Your task to perform on an android device: Clear the cart on target. Image 0: 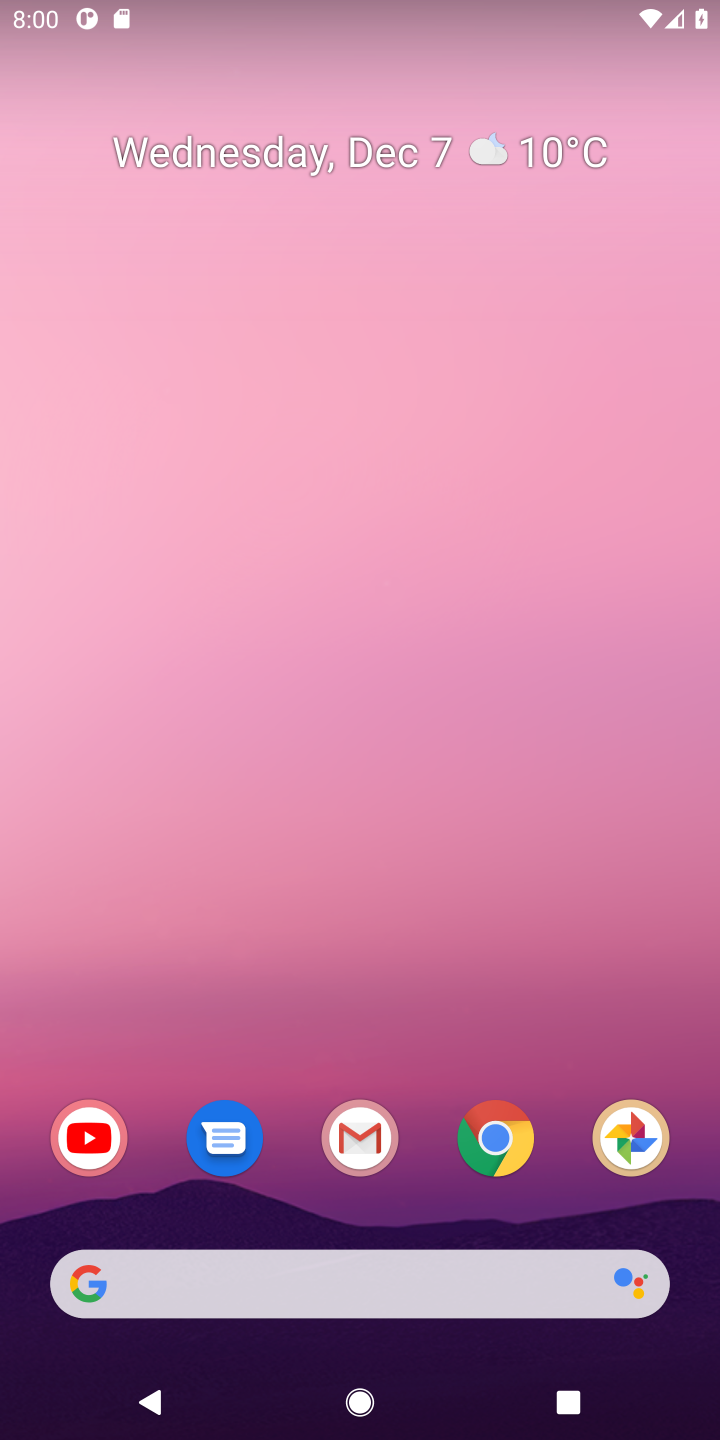
Step 0: press home button
Your task to perform on an android device: Clear the cart on target. Image 1: 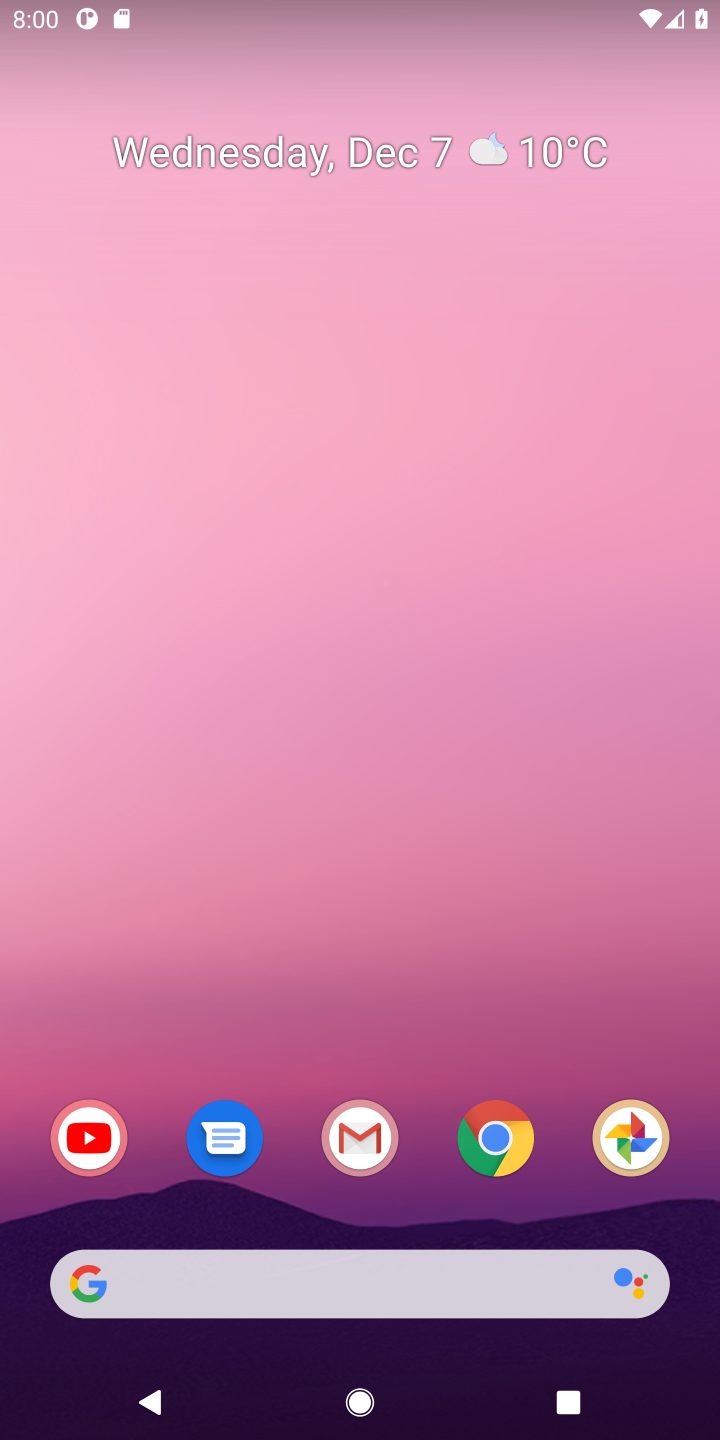
Step 1: click (130, 1273)
Your task to perform on an android device: Clear the cart on target. Image 2: 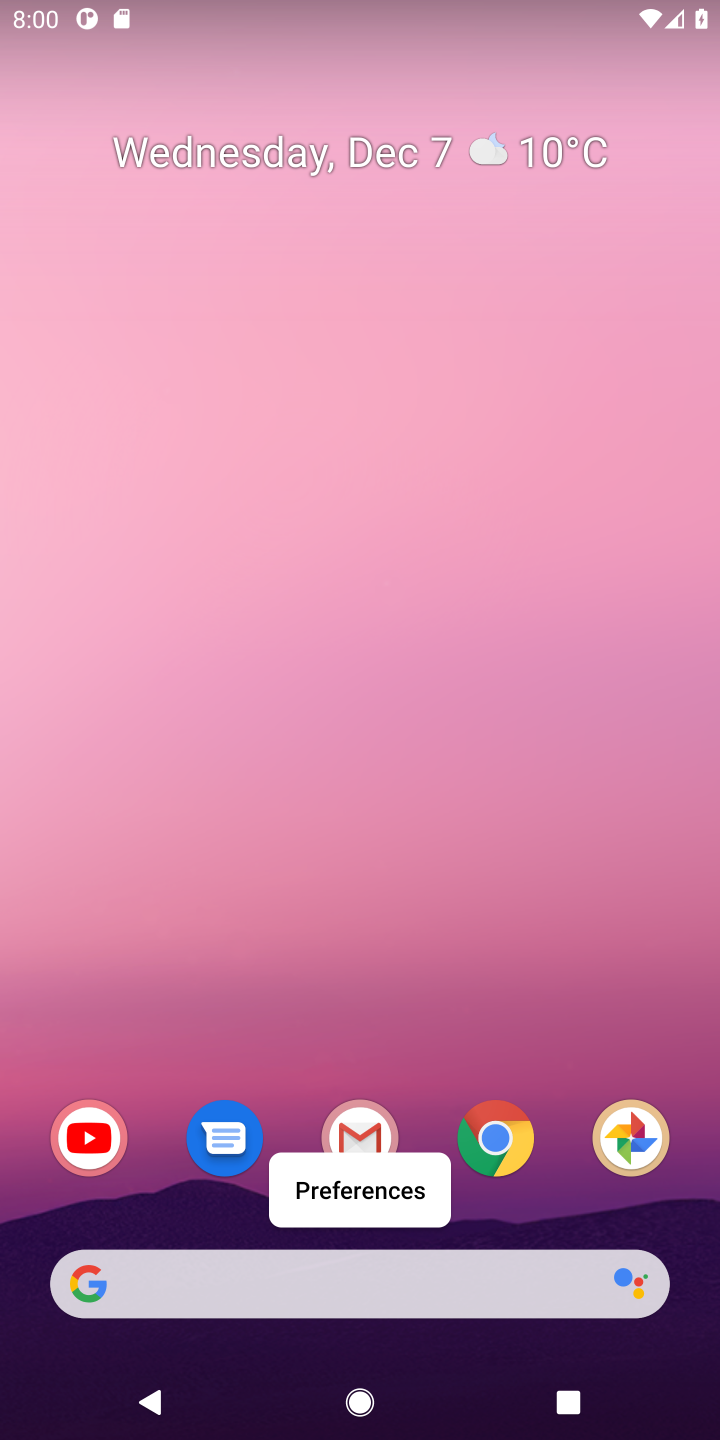
Step 2: click (129, 1283)
Your task to perform on an android device: Clear the cart on target. Image 3: 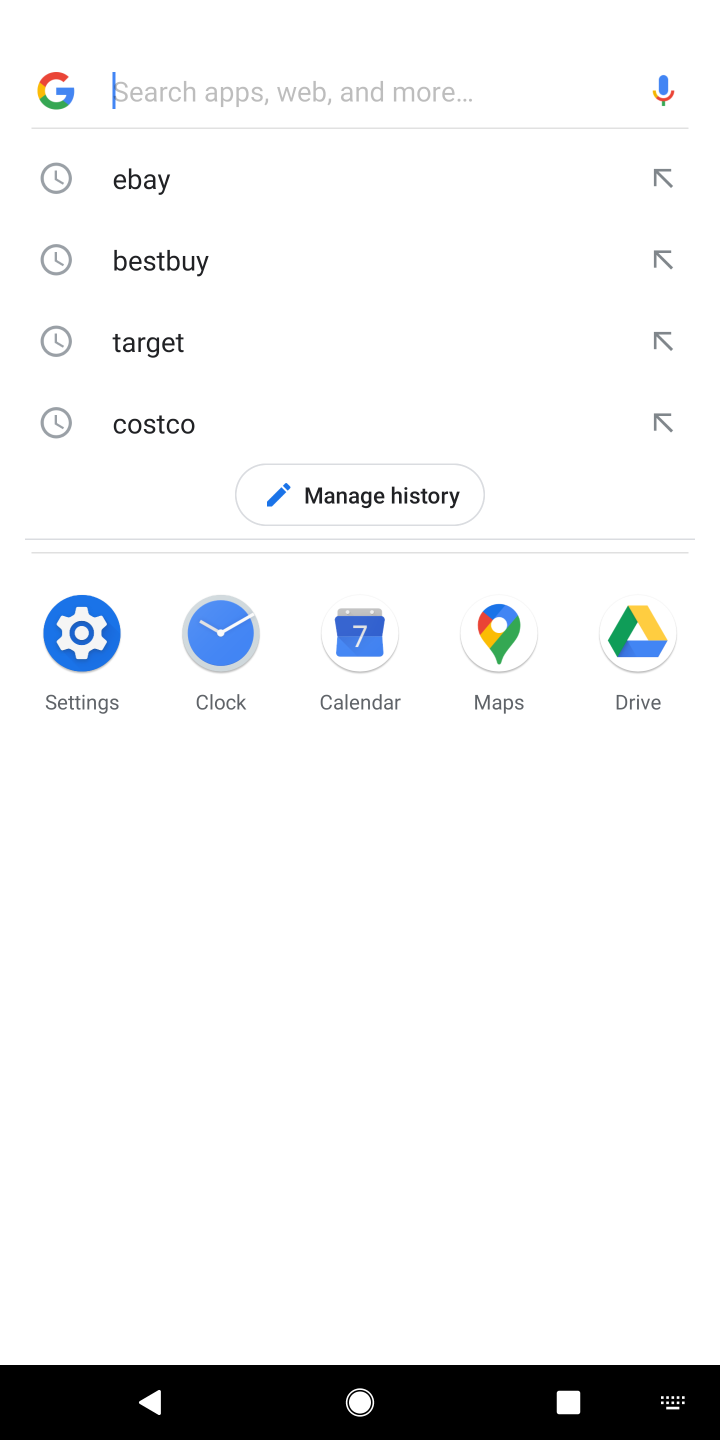
Step 3: press enter
Your task to perform on an android device: Clear the cart on target. Image 4: 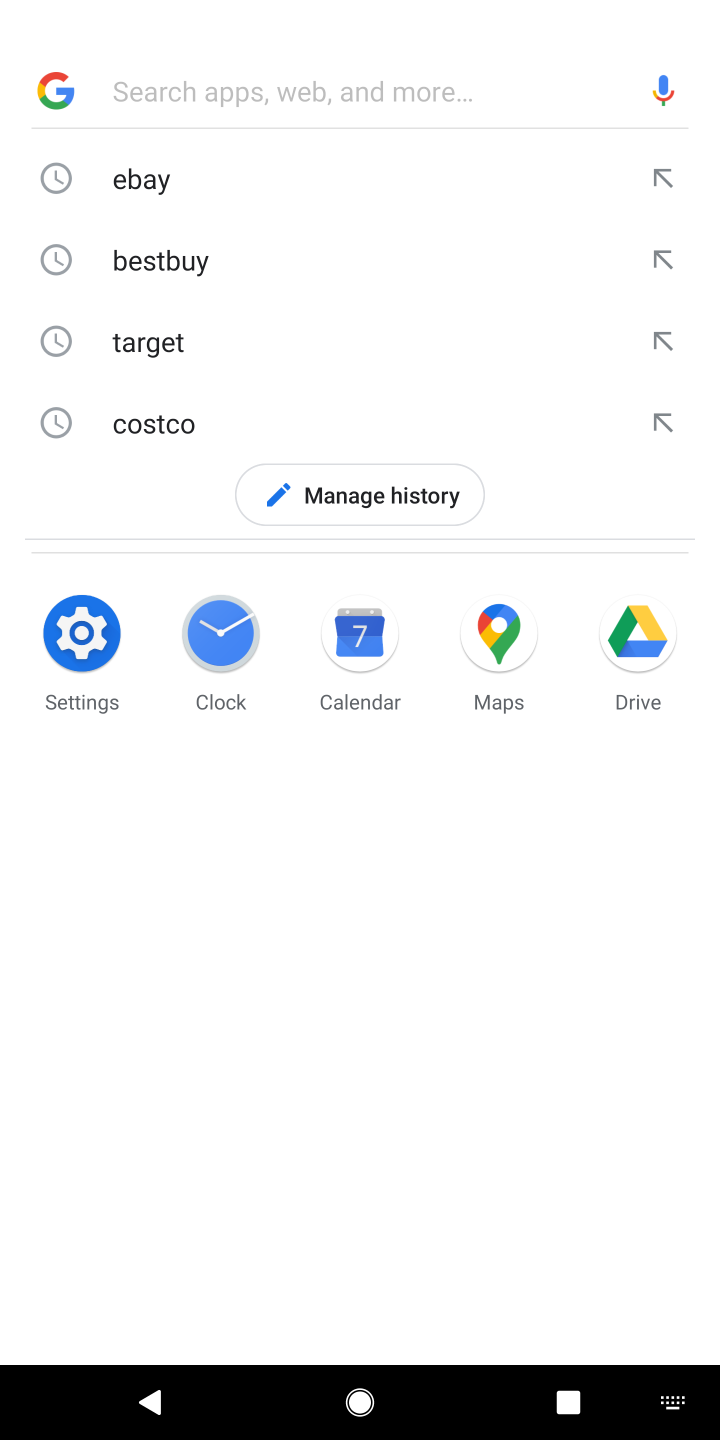
Step 4: type "target"
Your task to perform on an android device: Clear the cart on target. Image 5: 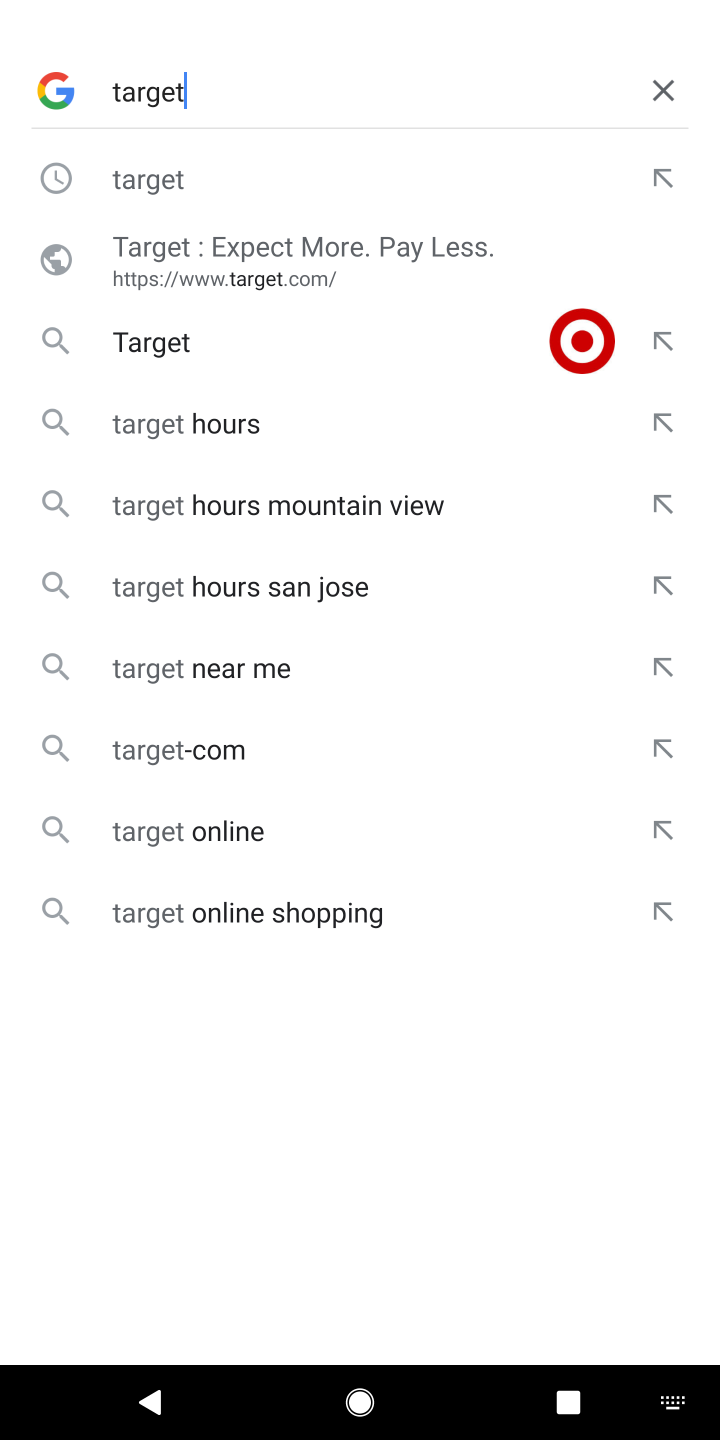
Step 5: press enter
Your task to perform on an android device: Clear the cart on target. Image 6: 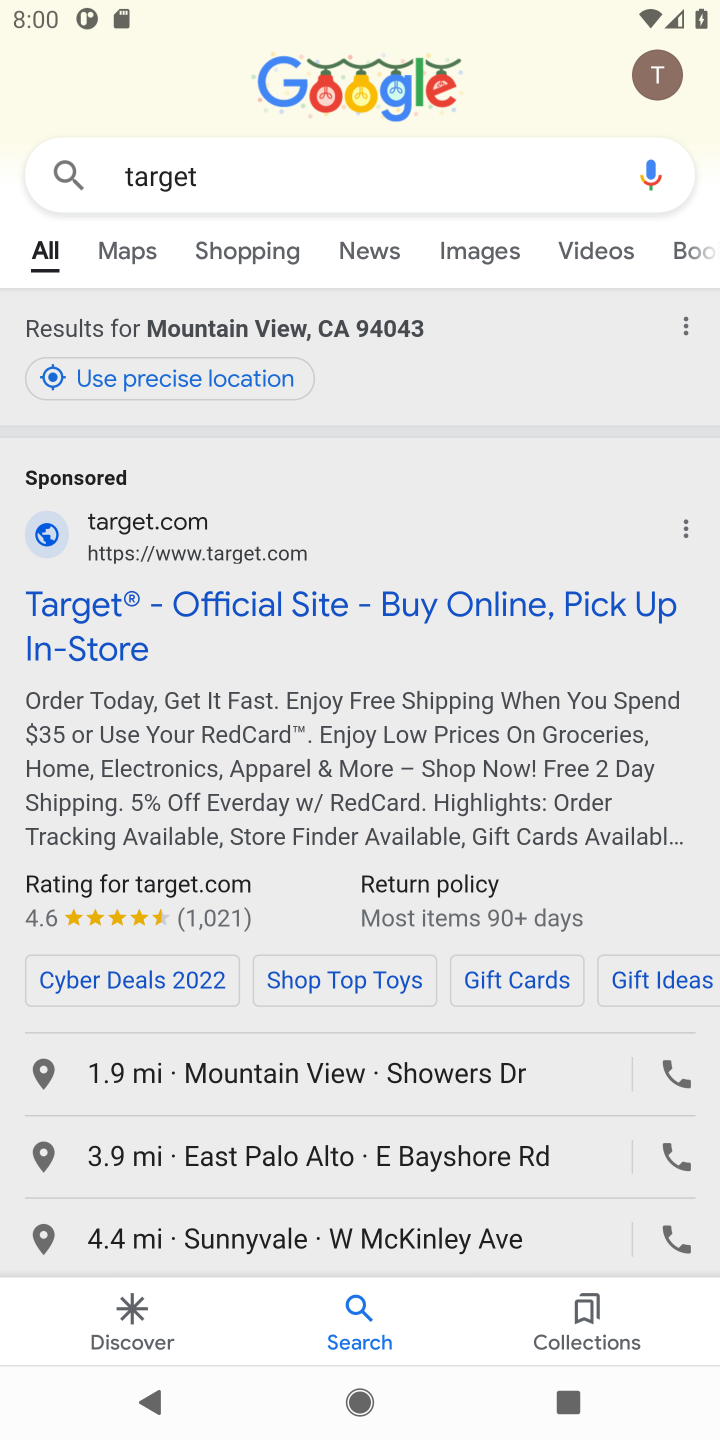
Step 6: click (251, 606)
Your task to perform on an android device: Clear the cart on target. Image 7: 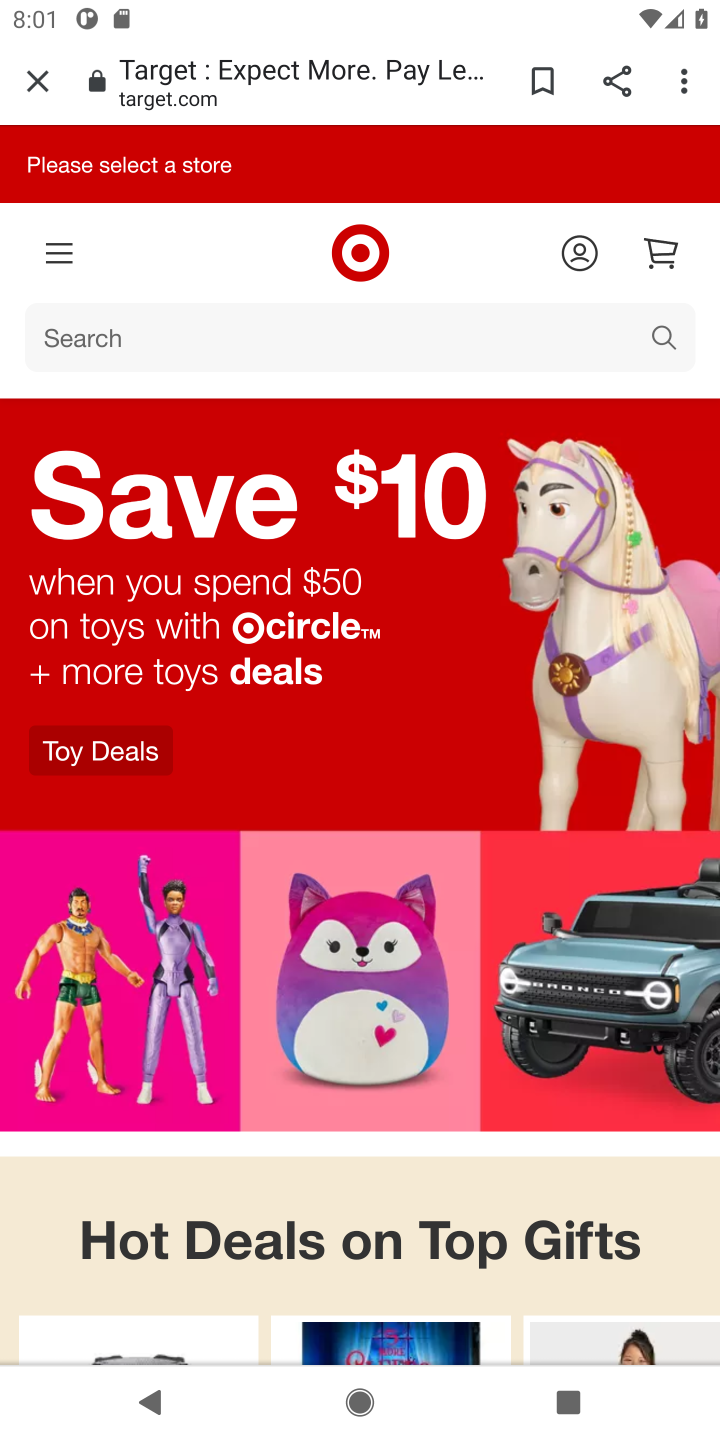
Step 7: click (657, 249)
Your task to perform on an android device: Clear the cart on target. Image 8: 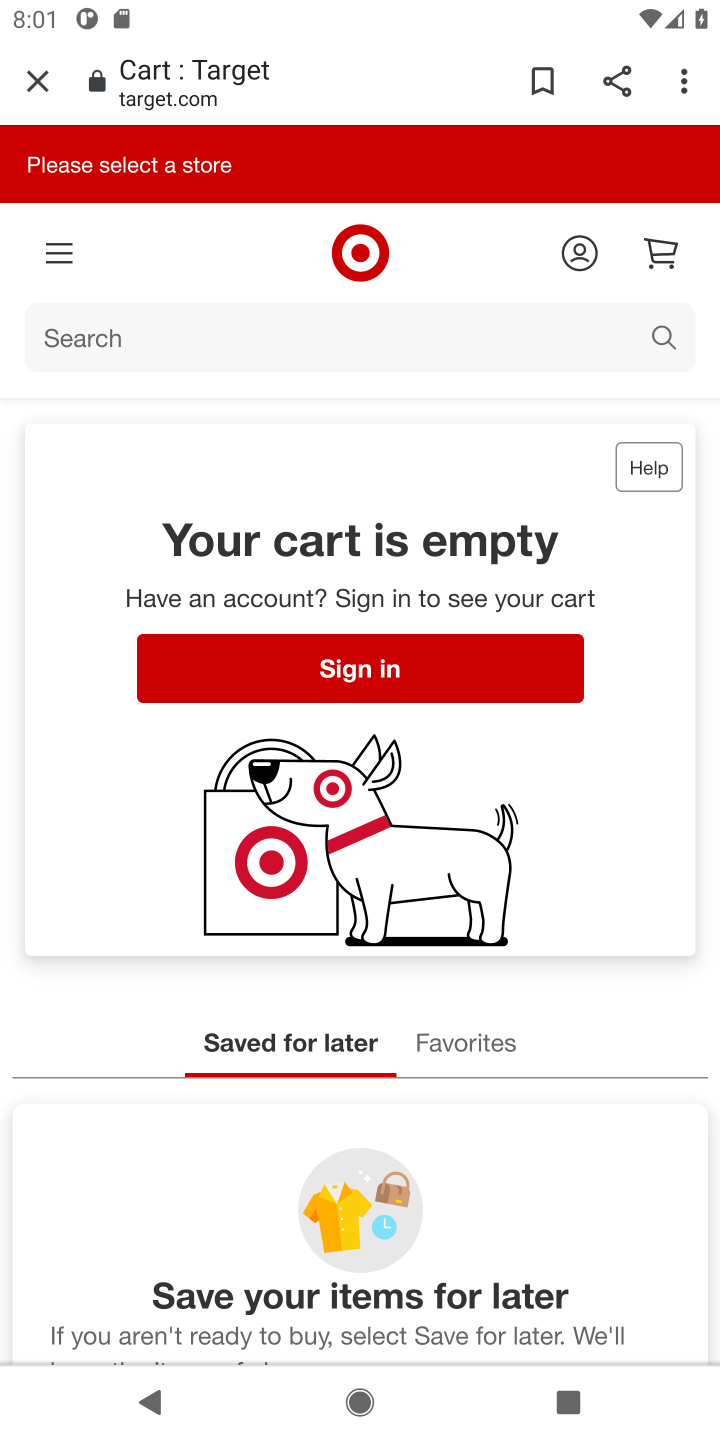
Step 8: task complete